Your task to perform on an android device: toggle improve location accuracy Image 0: 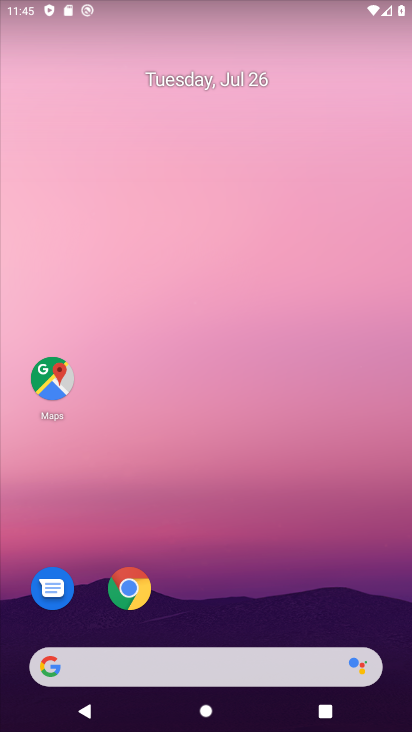
Step 0: drag from (27, 694) to (264, 267)
Your task to perform on an android device: toggle improve location accuracy Image 1: 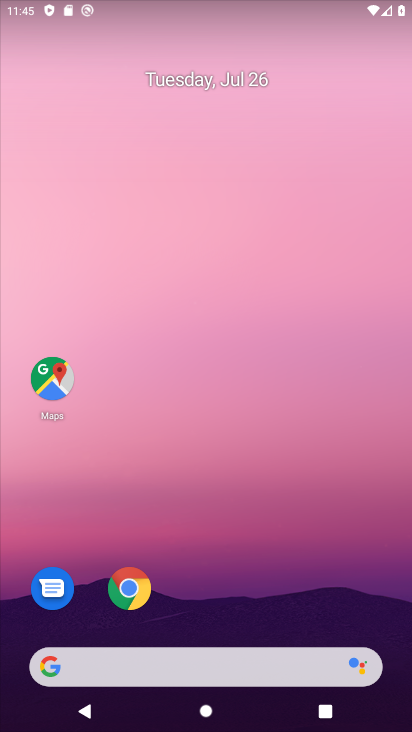
Step 1: click (306, 235)
Your task to perform on an android device: toggle improve location accuracy Image 2: 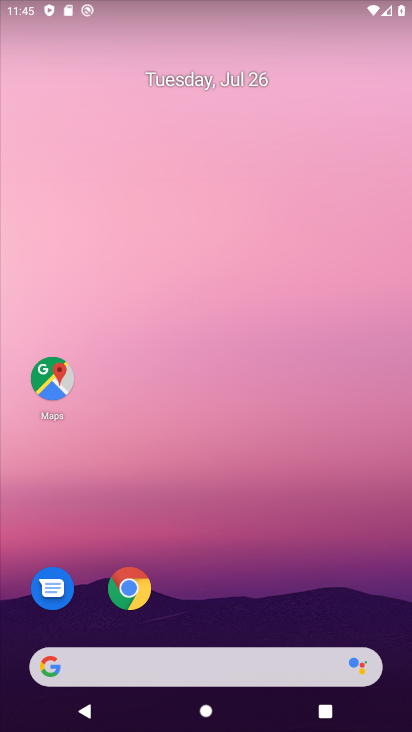
Step 2: drag from (20, 700) to (354, 13)
Your task to perform on an android device: toggle improve location accuracy Image 3: 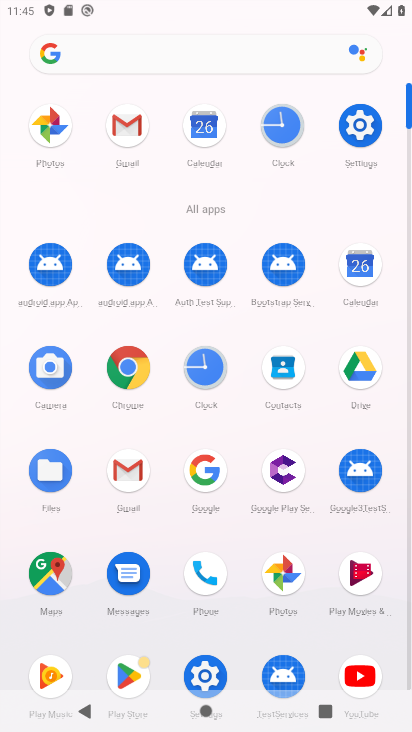
Step 3: click (205, 670)
Your task to perform on an android device: toggle improve location accuracy Image 4: 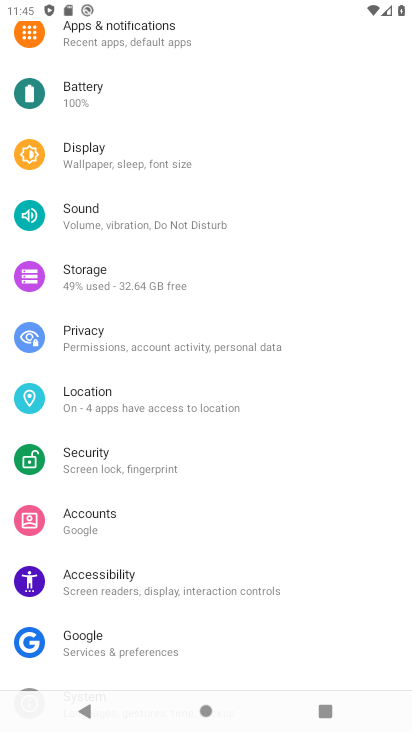
Step 4: click (107, 393)
Your task to perform on an android device: toggle improve location accuracy Image 5: 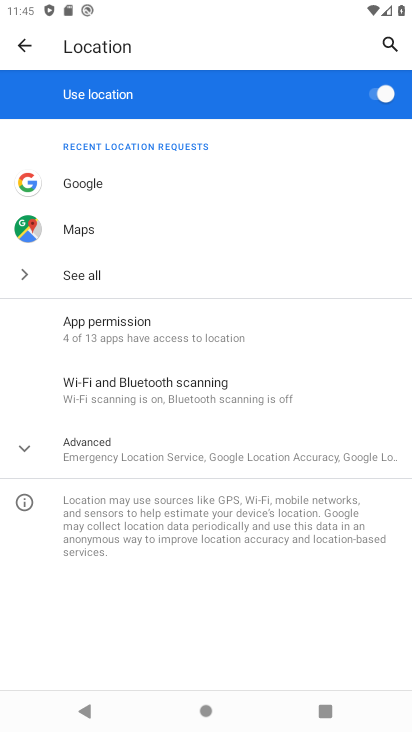
Step 5: click (159, 446)
Your task to perform on an android device: toggle improve location accuracy Image 6: 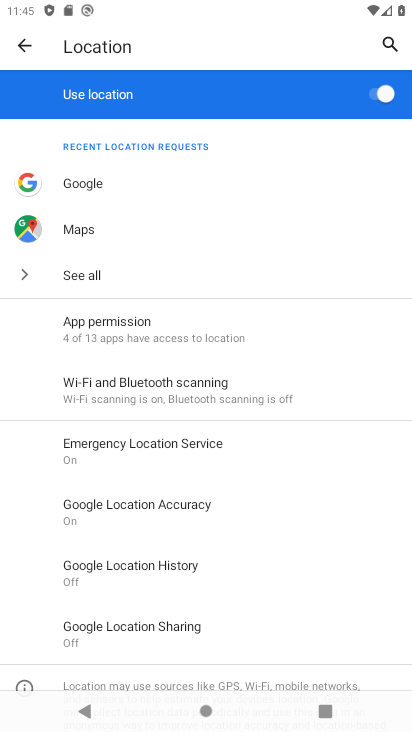
Step 6: task complete